Your task to perform on an android device: set an alarm Image 0: 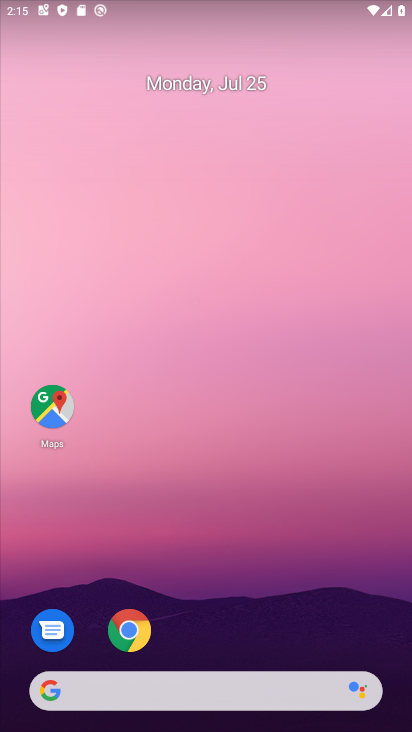
Step 0: drag from (233, 665) to (234, 318)
Your task to perform on an android device: set an alarm Image 1: 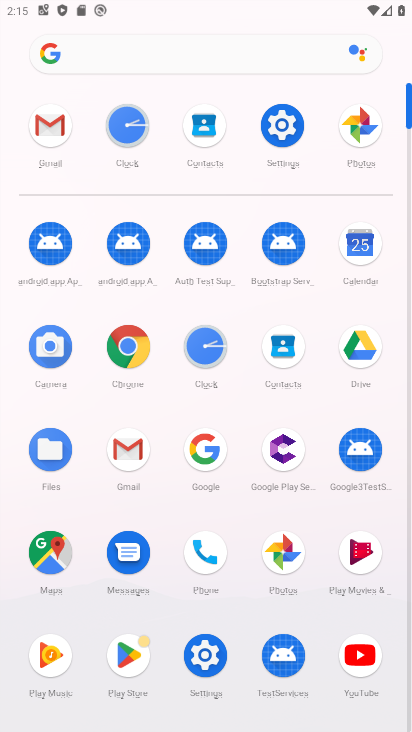
Step 1: click (114, 148)
Your task to perform on an android device: set an alarm Image 2: 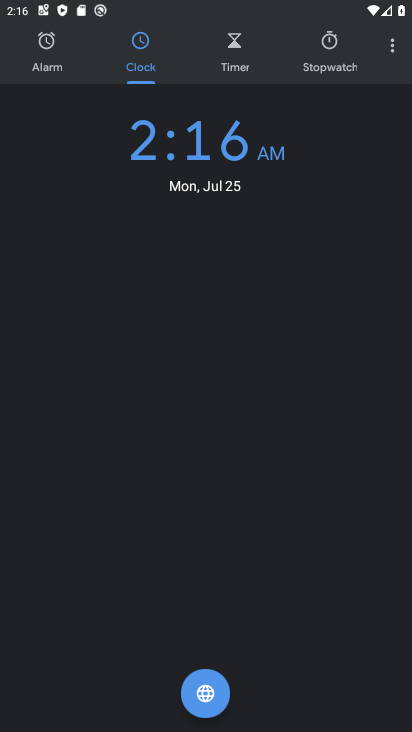
Step 2: click (46, 69)
Your task to perform on an android device: set an alarm Image 3: 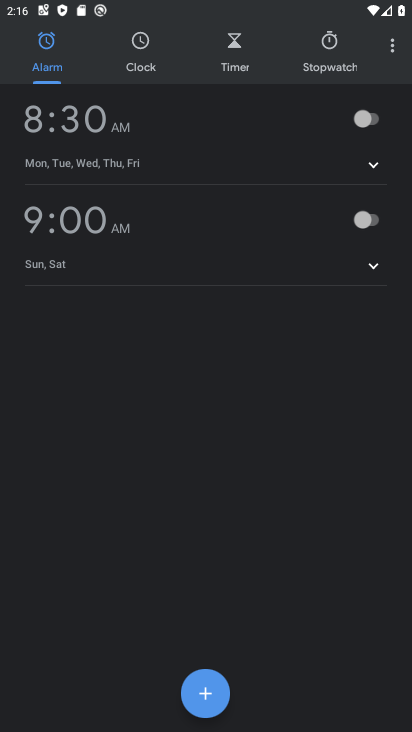
Step 3: click (379, 128)
Your task to perform on an android device: set an alarm Image 4: 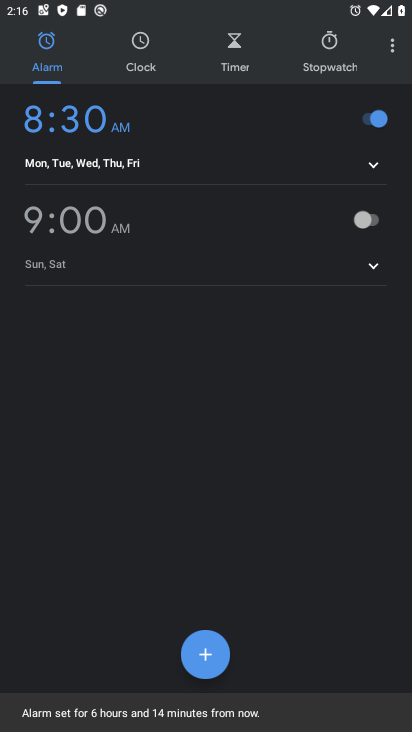
Step 4: task complete